Your task to perform on an android device: see sites visited before in the chrome app Image 0: 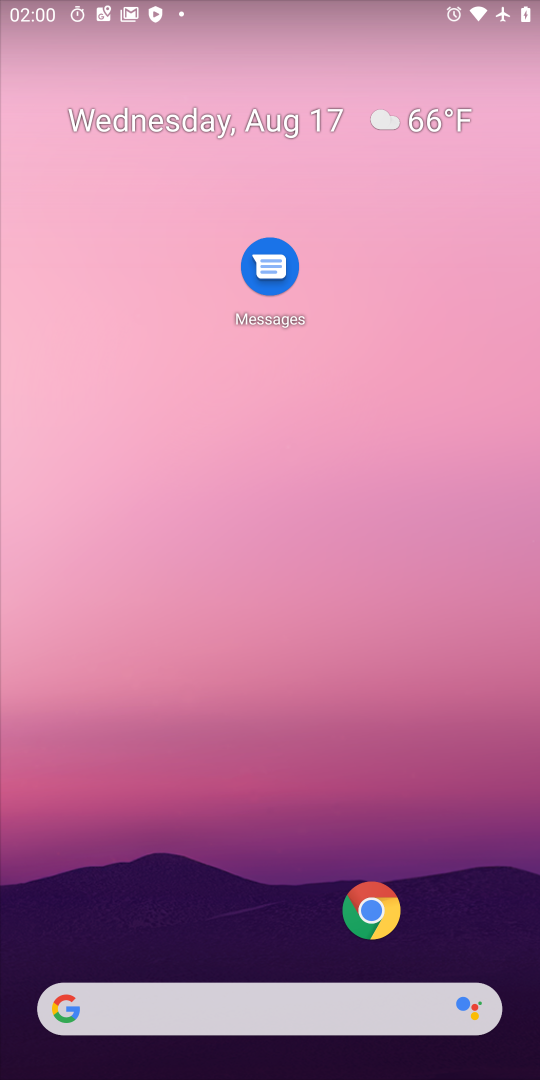
Step 0: drag from (238, 826) to (258, 63)
Your task to perform on an android device: see sites visited before in the chrome app Image 1: 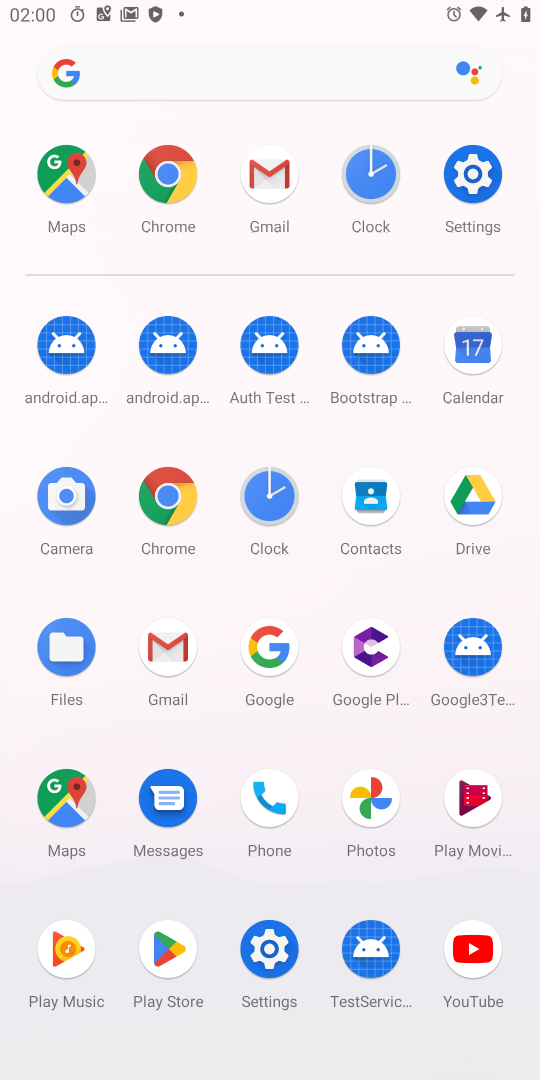
Step 1: click (173, 509)
Your task to perform on an android device: see sites visited before in the chrome app Image 2: 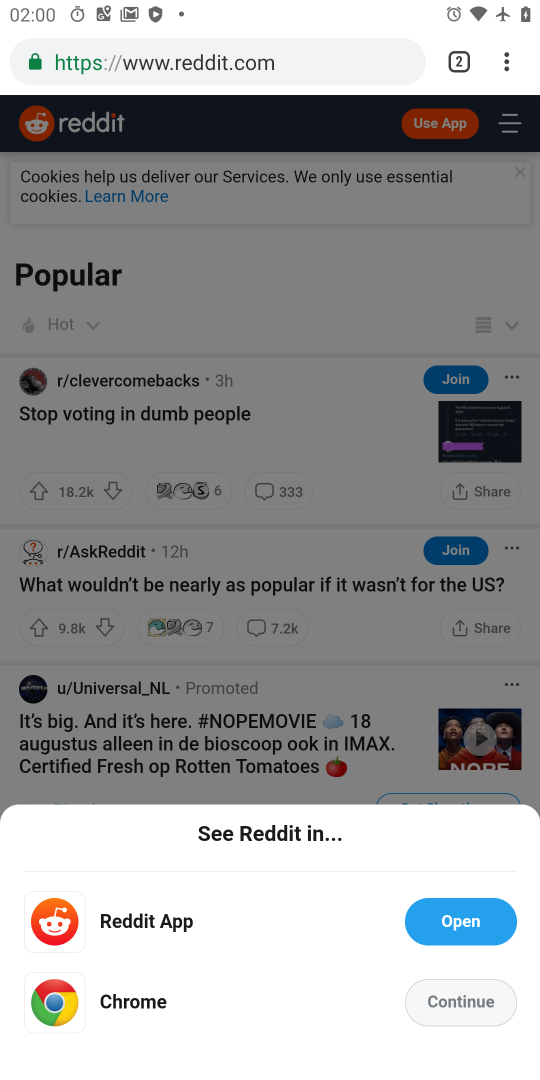
Step 2: press home button
Your task to perform on an android device: see sites visited before in the chrome app Image 3: 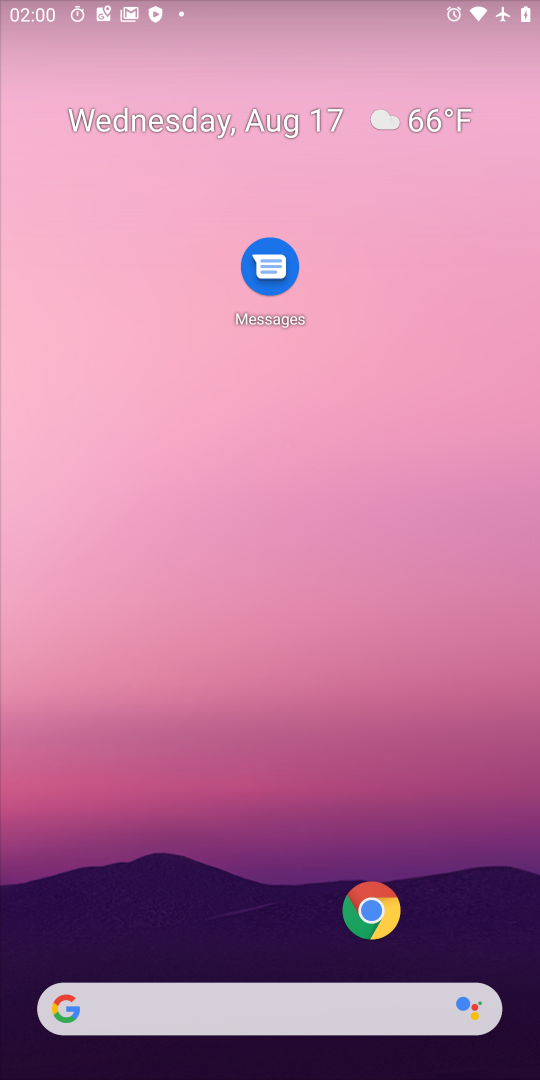
Step 3: drag from (210, 527) to (255, 7)
Your task to perform on an android device: see sites visited before in the chrome app Image 4: 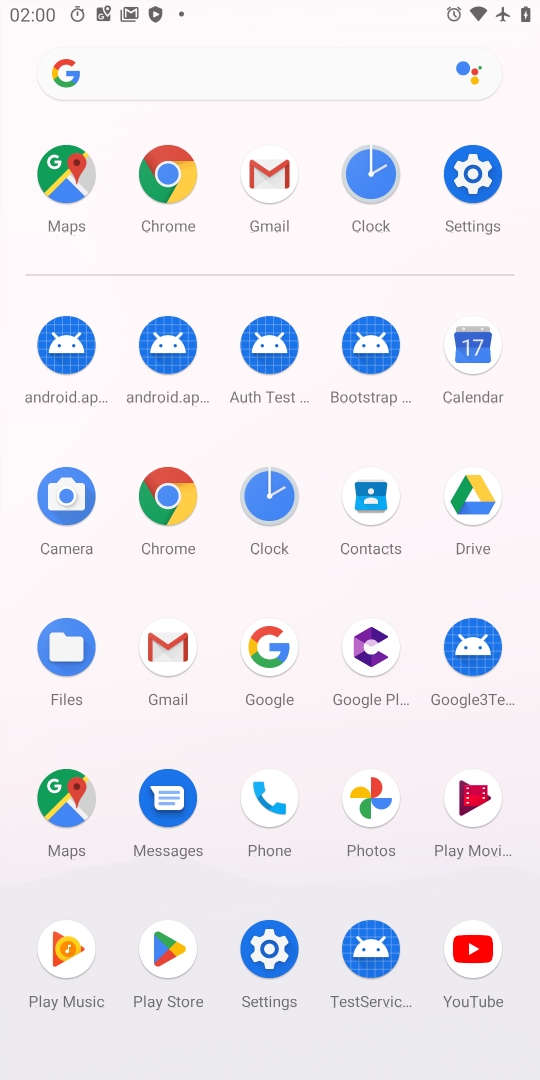
Step 4: click (166, 500)
Your task to perform on an android device: see sites visited before in the chrome app Image 5: 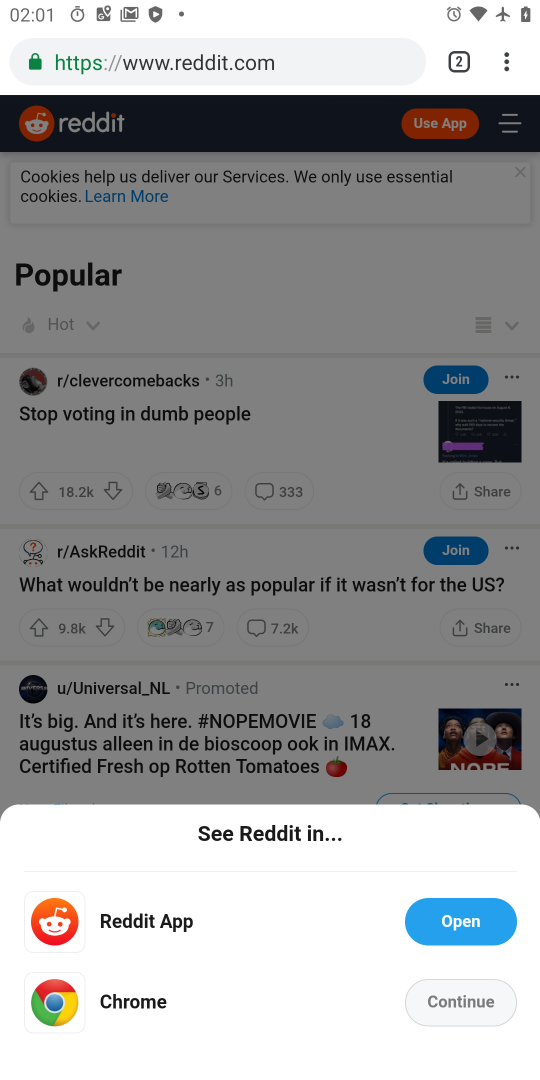
Step 5: task complete